Your task to perform on an android device: search for starred emails in the gmail app Image 0: 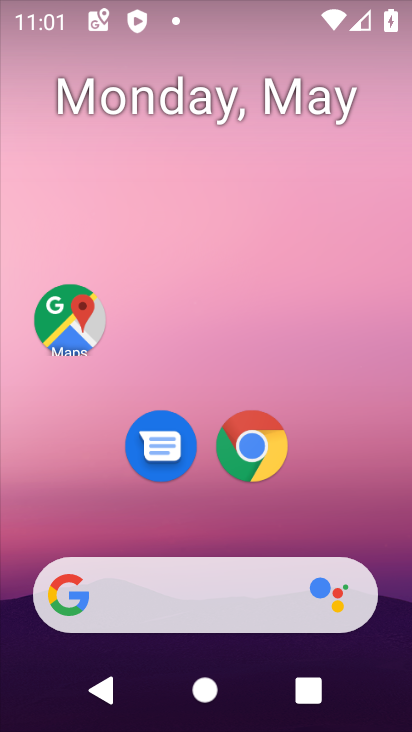
Step 0: drag from (358, 353) to (348, 93)
Your task to perform on an android device: search for starred emails in the gmail app Image 1: 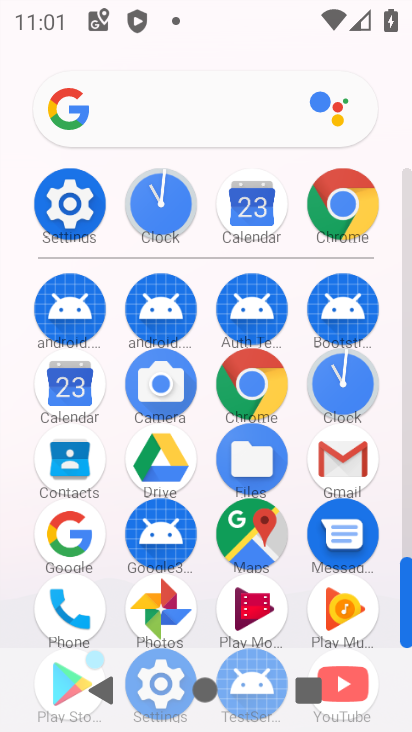
Step 1: click (346, 455)
Your task to perform on an android device: search for starred emails in the gmail app Image 2: 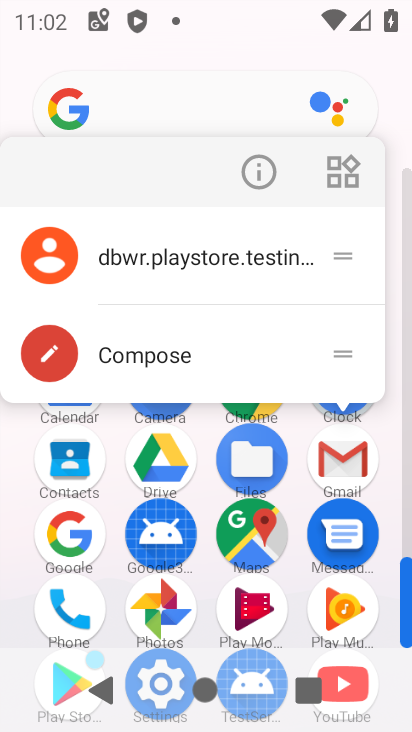
Step 2: click (362, 455)
Your task to perform on an android device: search for starred emails in the gmail app Image 3: 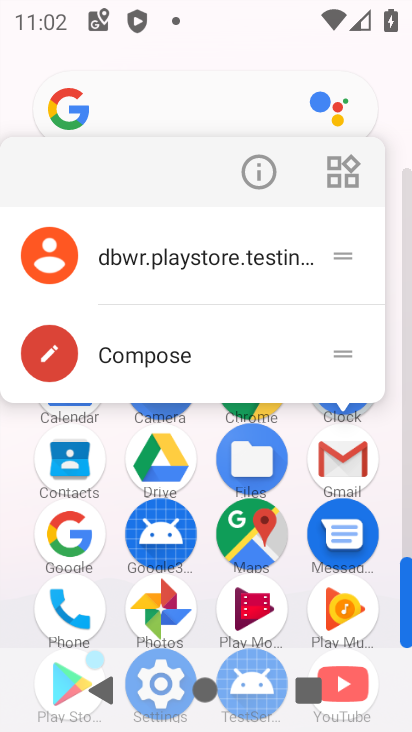
Step 3: click (362, 454)
Your task to perform on an android device: search for starred emails in the gmail app Image 4: 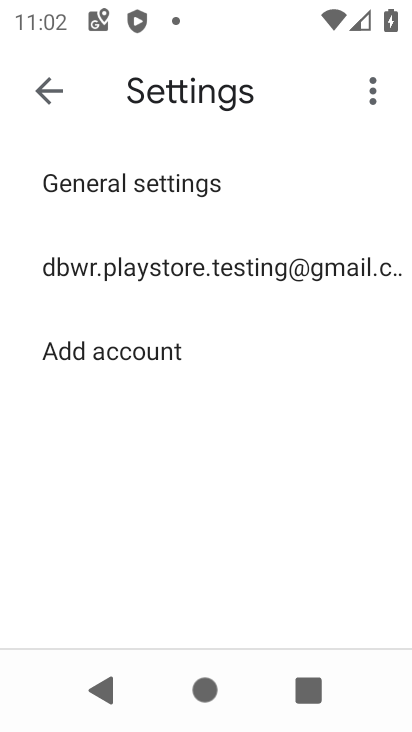
Step 4: click (39, 115)
Your task to perform on an android device: search for starred emails in the gmail app Image 5: 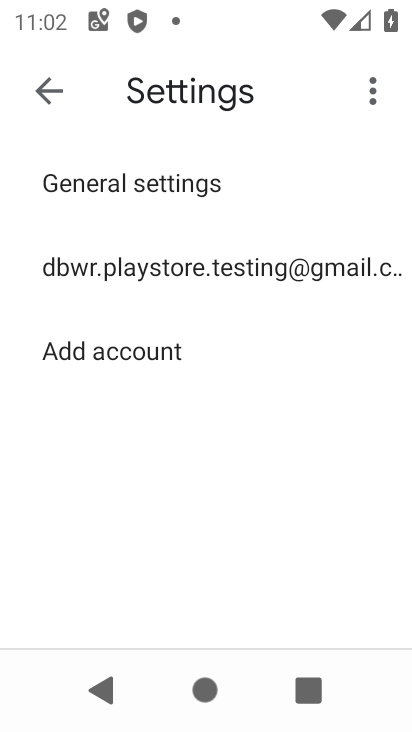
Step 5: click (46, 100)
Your task to perform on an android device: search for starred emails in the gmail app Image 6: 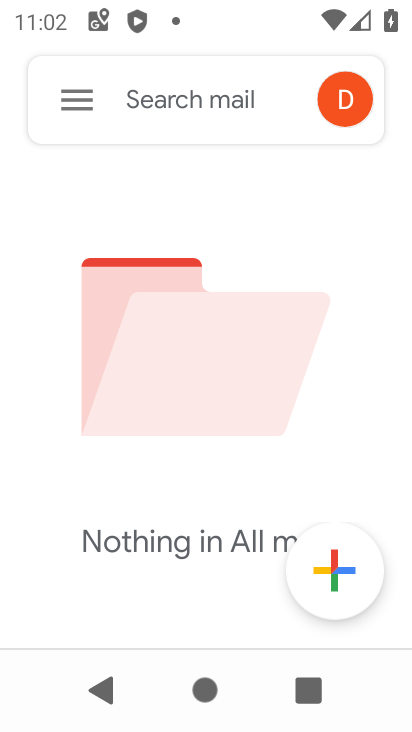
Step 6: click (67, 108)
Your task to perform on an android device: search for starred emails in the gmail app Image 7: 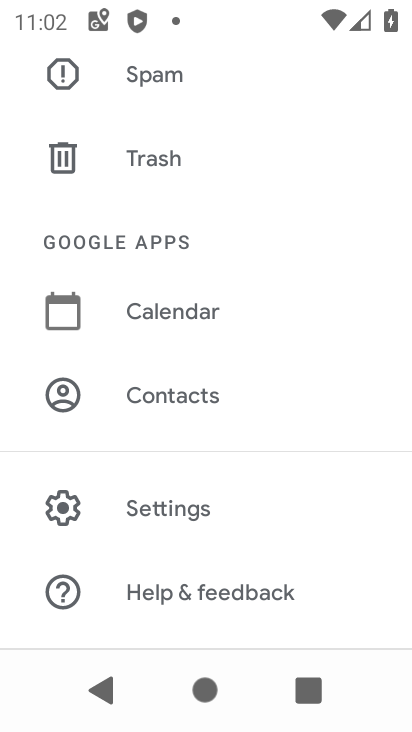
Step 7: drag from (174, 271) to (270, 625)
Your task to perform on an android device: search for starred emails in the gmail app Image 8: 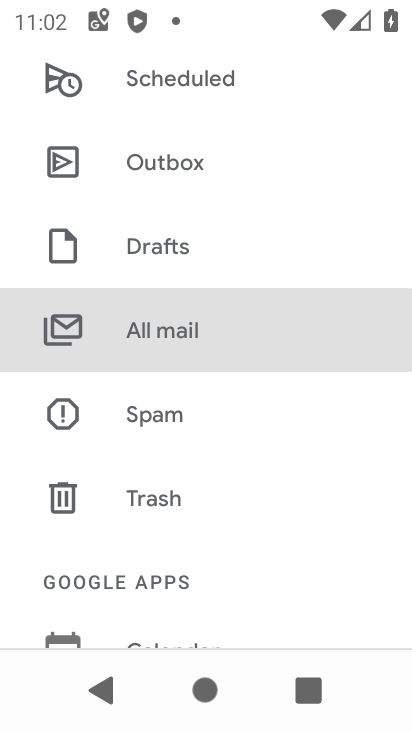
Step 8: drag from (194, 184) to (257, 660)
Your task to perform on an android device: search for starred emails in the gmail app Image 9: 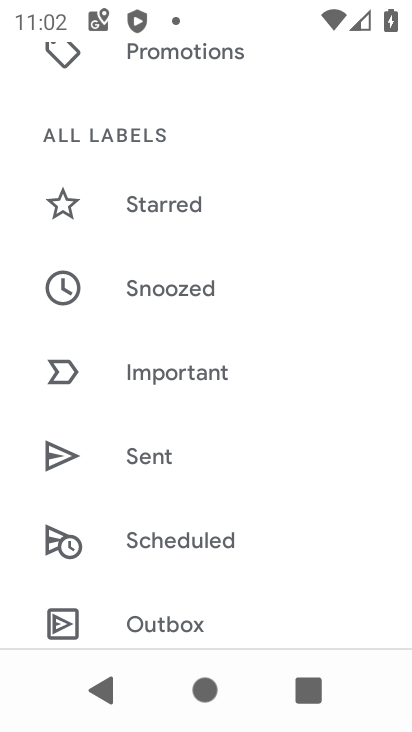
Step 9: click (153, 189)
Your task to perform on an android device: search for starred emails in the gmail app Image 10: 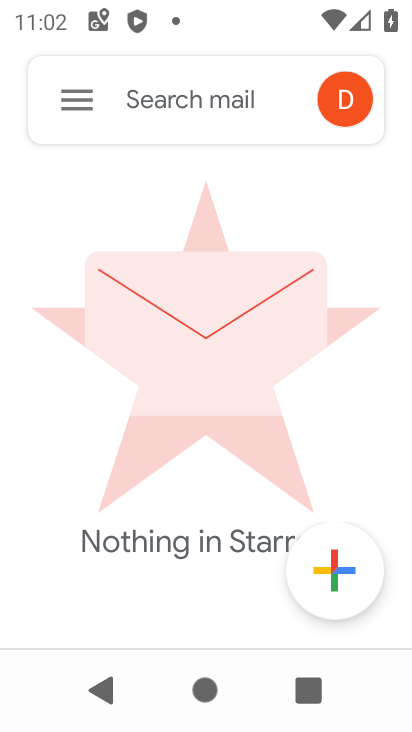
Step 10: task complete